Your task to perform on an android device: set the timer Image 0: 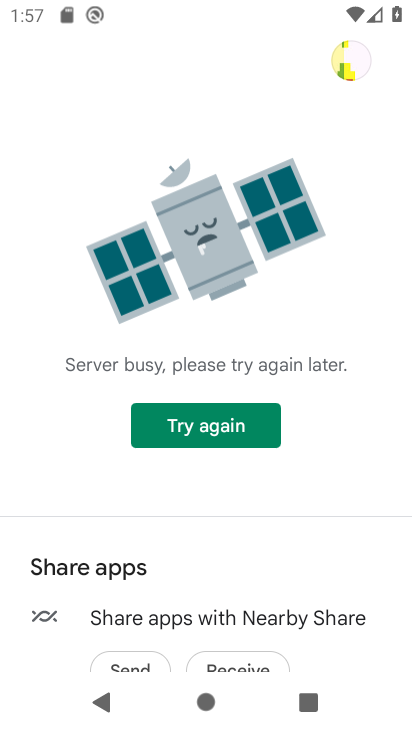
Step 0: press home button
Your task to perform on an android device: set the timer Image 1: 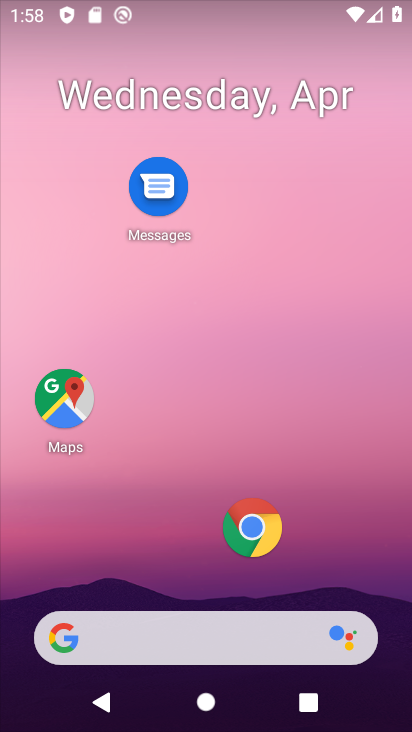
Step 1: click (144, 585)
Your task to perform on an android device: set the timer Image 2: 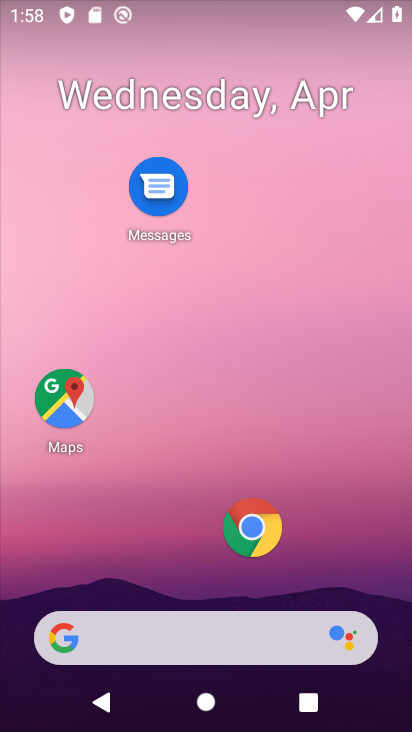
Step 2: drag from (159, 518) to (239, 111)
Your task to perform on an android device: set the timer Image 3: 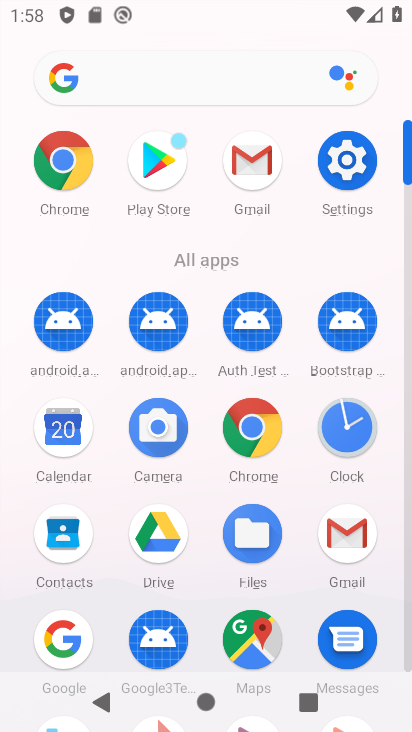
Step 3: click (353, 423)
Your task to perform on an android device: set the timer Image 4: 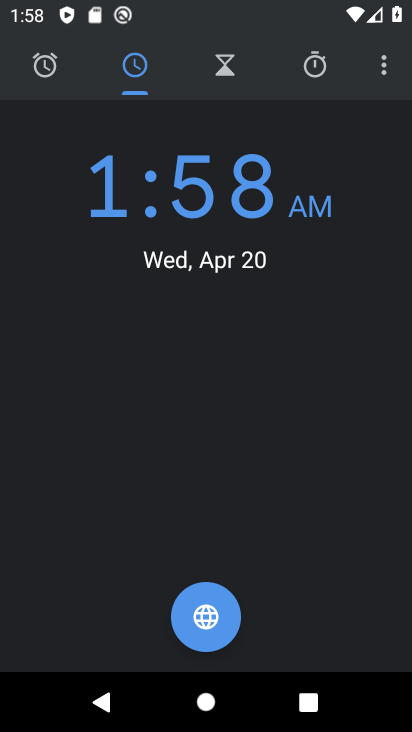
Step 4: click (212, 79)
Your task to perform on an android device: set the timer Image 5: 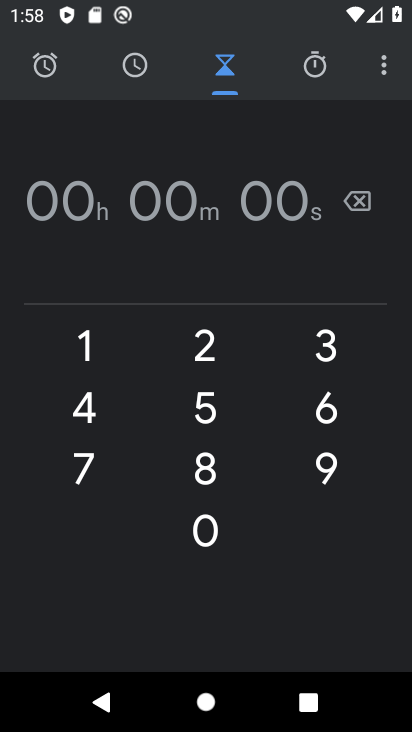
Step 5: click (219, 345)
Your task to perform on an android device: set the timer Image 6: 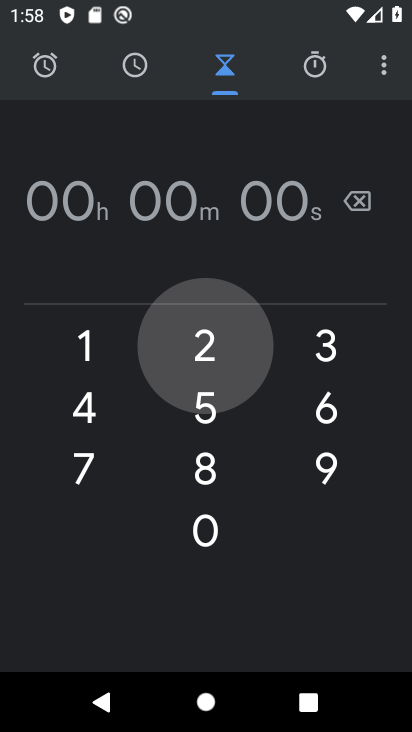
Step 6: click (311, 338)
Your task to perform on an android device: set the timer Image 7: 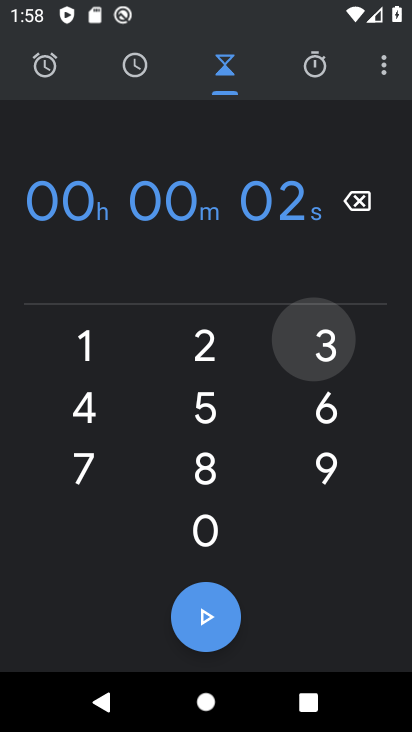
Step 7: click (176, 412)
Your task to perform on an android device: set the timer Image 8: 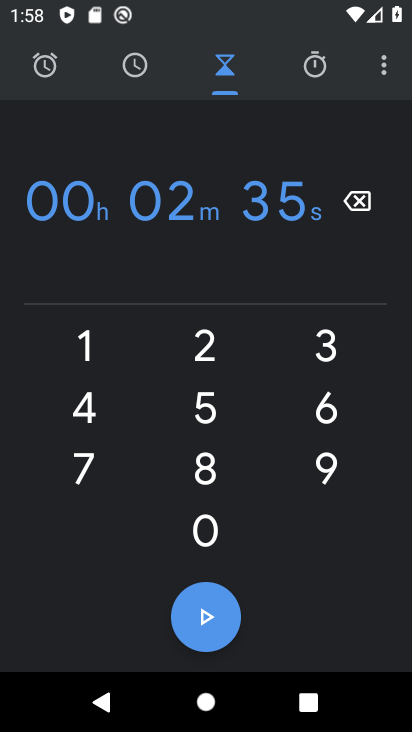
Step 8: click (218, 599)
Your task to perform on an android device: set the timer Image 9: 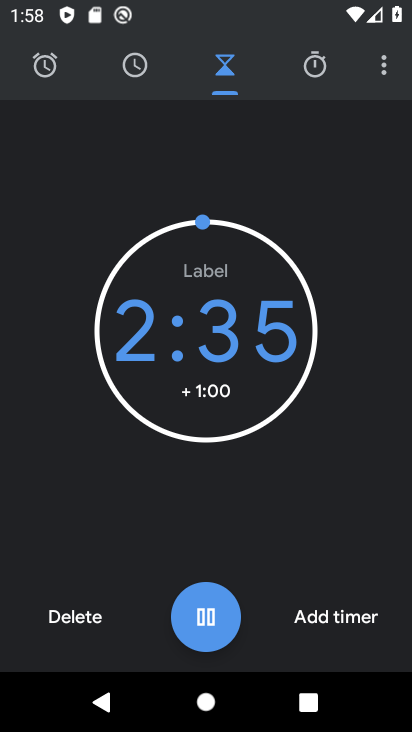
Step 9: task complete